Your task to perform on an android device: read, delete, or share a saved page in the chrome app Image 0: 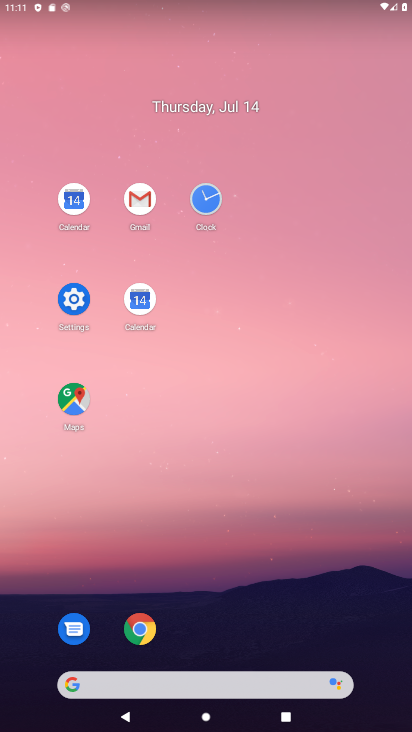
Step 0: click (140, 631)
Your task to perform on an android device: read, delete, or share a saved page in the chrome app Image 1: 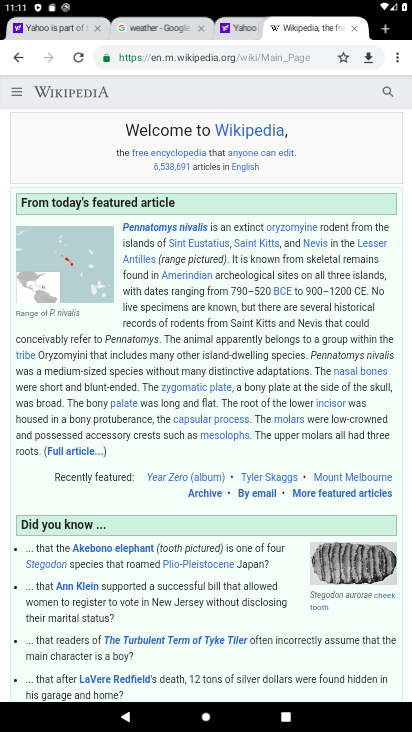
Step 1: click (400, 59)
Your task to perform on an android device: read, delete, or share a saved page in the chrome app Image 2: 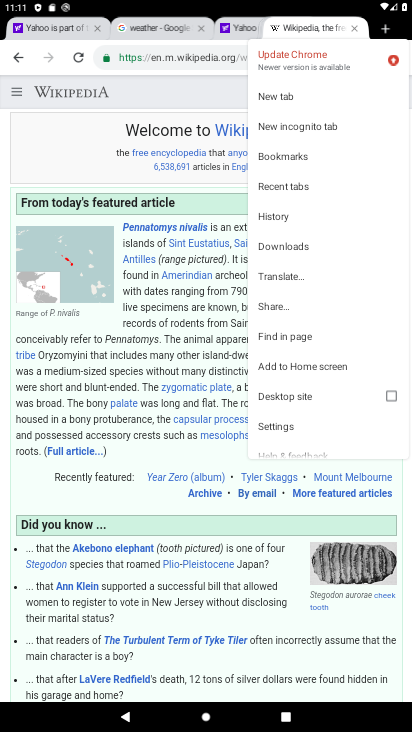
Step 2: click (322, 243)
Your task to perform on an android device: read, delete, or share a saved page in the chrome app Image 3: 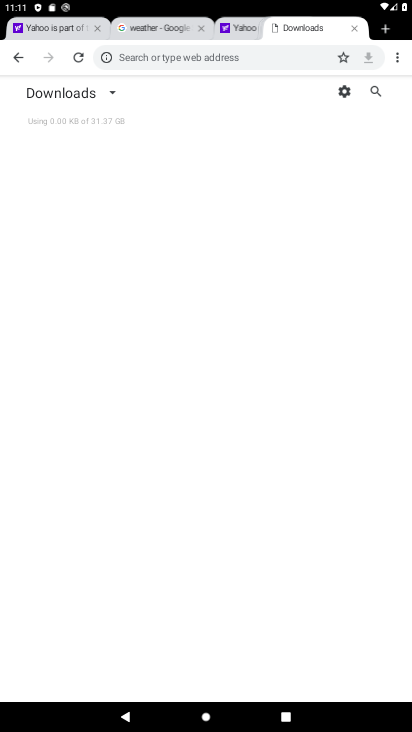
Step 3: task complete